Your task to perform on an android device: Open ESPN.com Image 0: 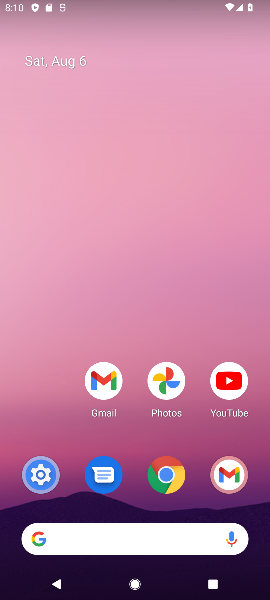
Step 0: click (160, 488)
Your task to perform on an android device: Open ESPN.com Image 1: 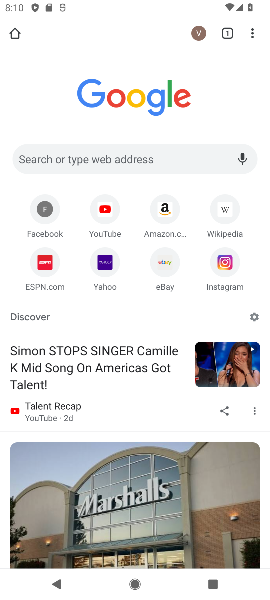
Step 1: click (45, 265)
Your task to perform on an android device: Open ESPN.com Image 2: 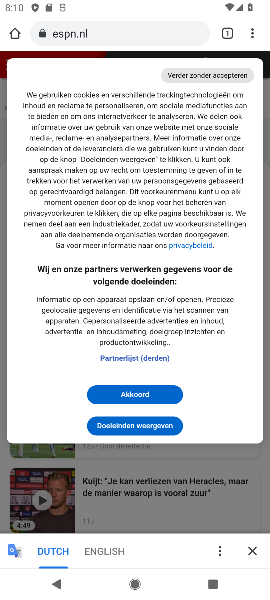
Step 2: task complete